Your task to perform on an android device: Check the weather Image 0: 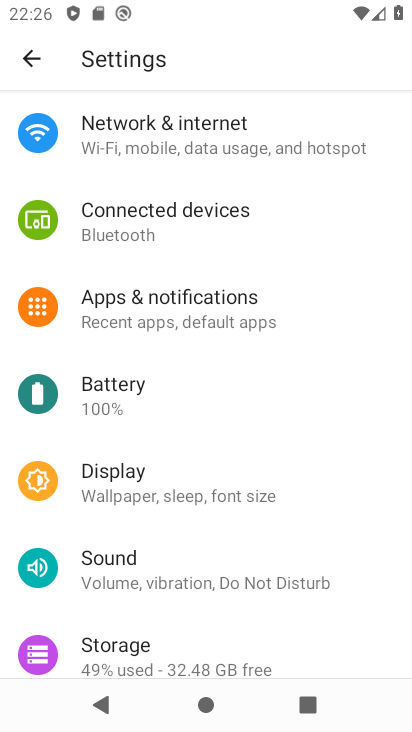
Step 0: press home button
Your task to perform on an android device: Check the weather Image 1: 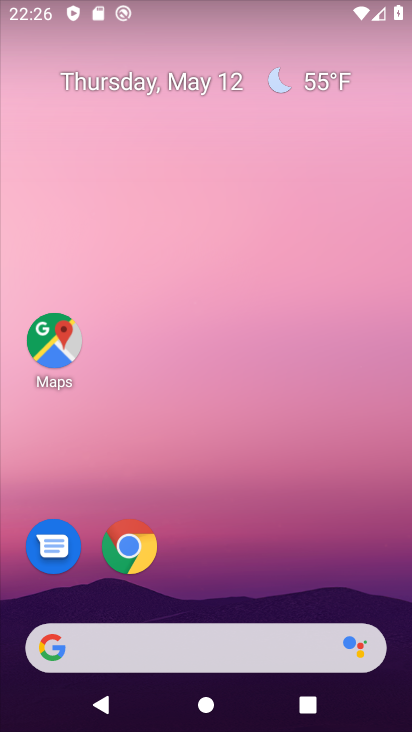
Step 1: click (128, 546)
Your task to perform on an android device: Check the weather Image 2: 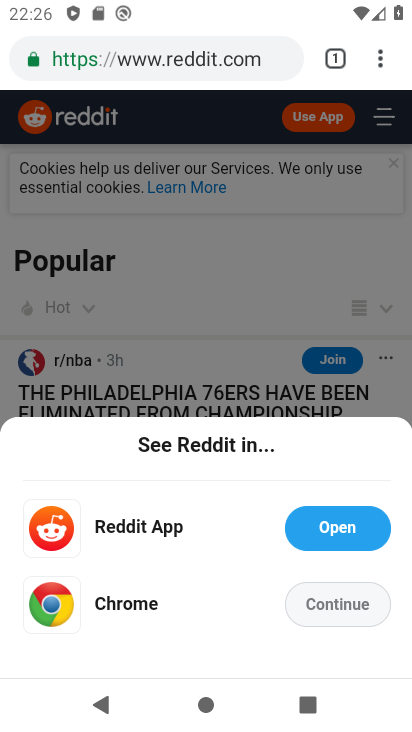
Step 2: click (114, 64)
Your task to perform on an android device: Check the weather Image 3: 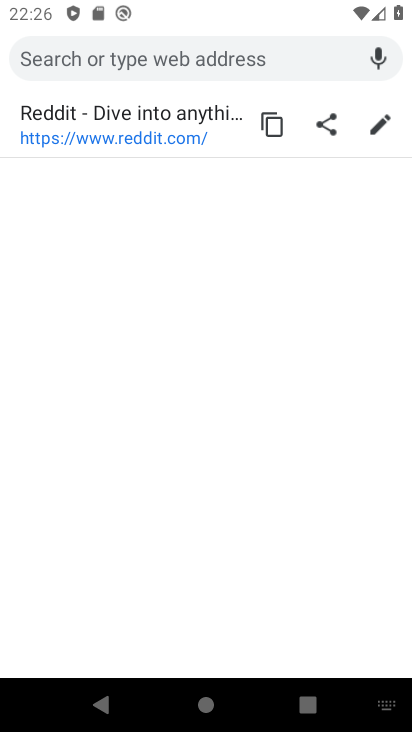
Step 3: type "weather"
Your task to perform on an android device: Check the weather Image 4: 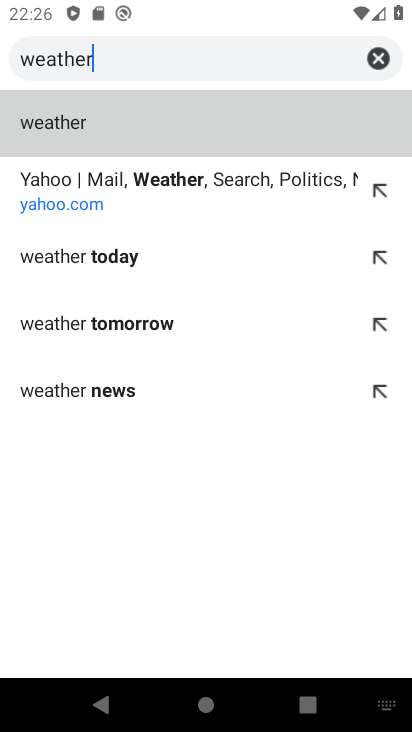
Step 4: click (181, 115)
Your task to perform on an android device: Check the weather Image 5: 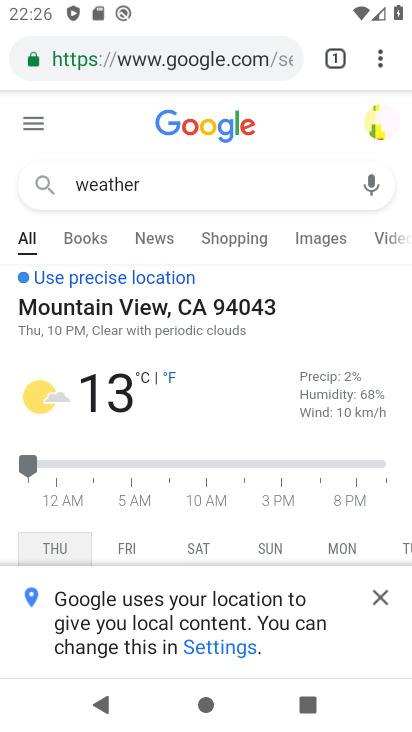
Step 5: task complete